Your task to perform on an android device: Open settings on Google Maps Image 0: 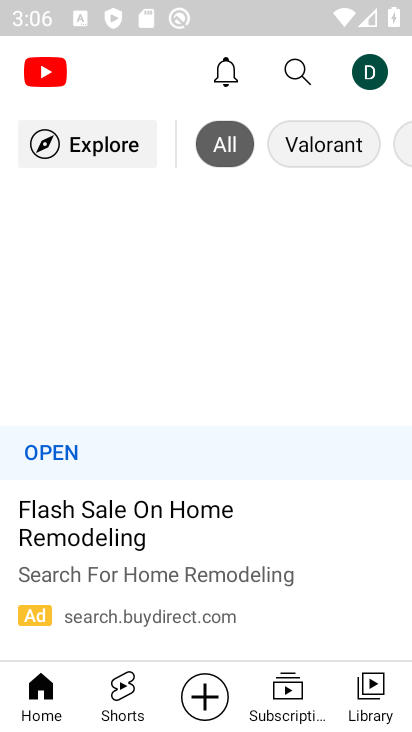
Step 0: press home button
Your task to perform on an android device: Open settings on Google Maps Image 1: 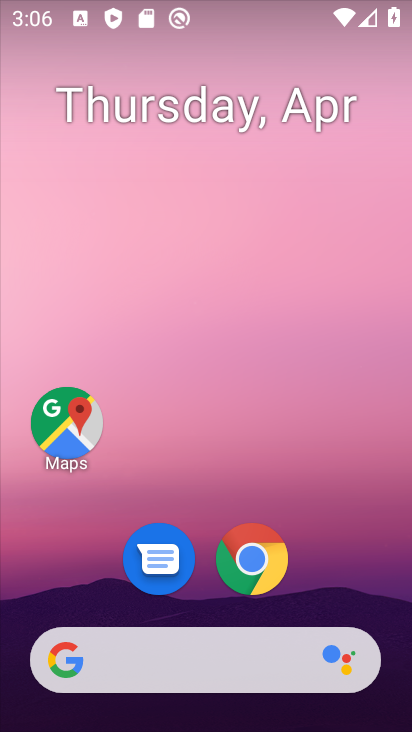
Step 1: click (265, 545)
Your task to perform on an android device: Open settings on Google Maps Image 2: 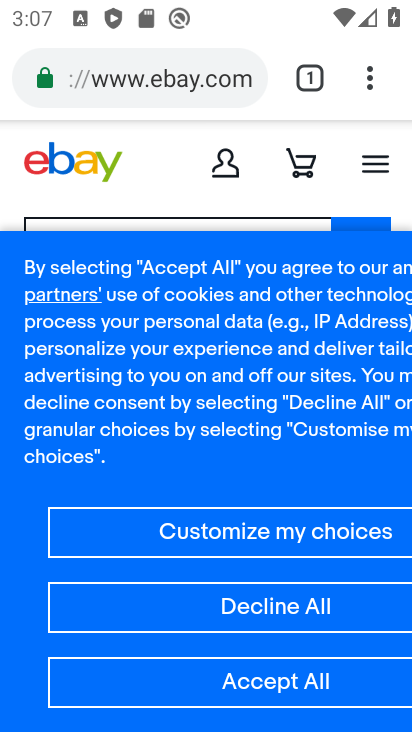
Step 2: press home button
Your task to perform on an android device: Open settings on Google Maps Image 3: 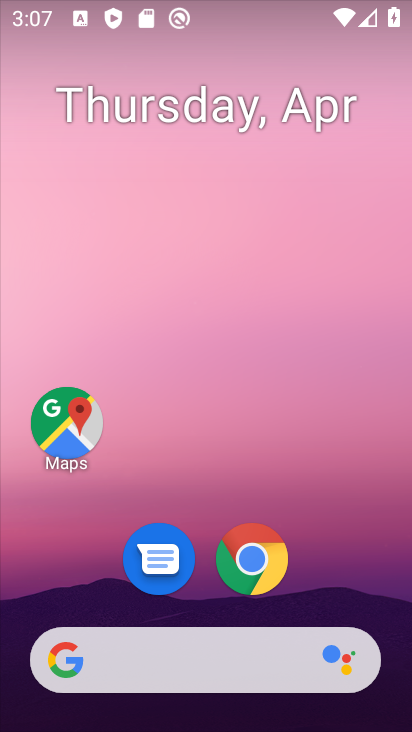
Step 3: click (69, 407)
Your task to perform on an android device: Open settings on Google Maps Image 4: 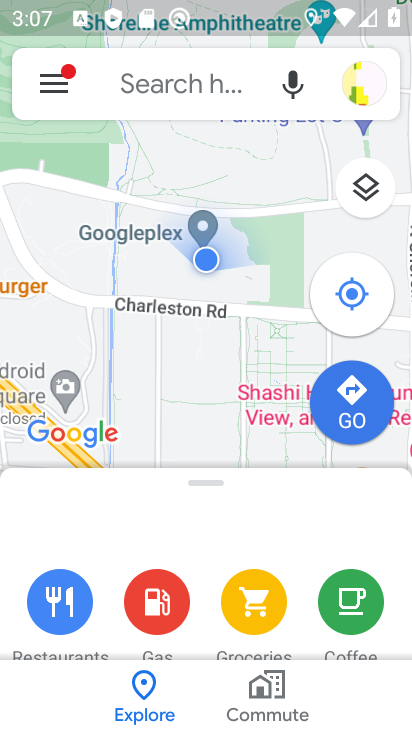
Step 4: task complete